Your task to perform on an android device: all mails in gmail Image 0: 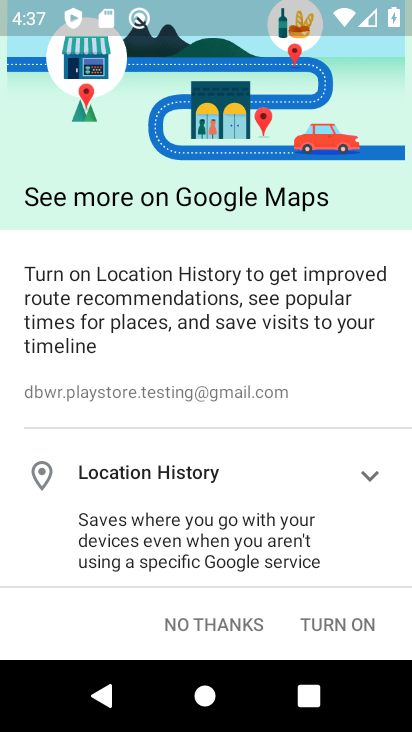
Step 0: press home button
Your task to perform on an android device: all mails in gmail Image 1: 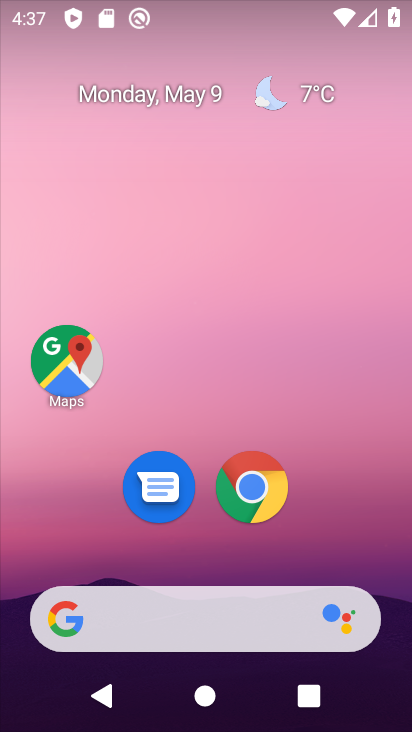
Step 1: drag from (216, 535) to (270, 136)
Your task to perform on an android device: all mails in gmail Image 2: 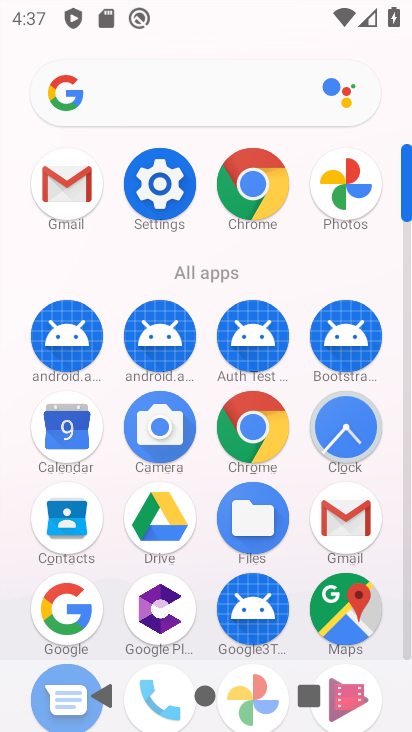
Step 2: click (63, 204)
Your task to perform on an android device: all mails in gmail Image 3: 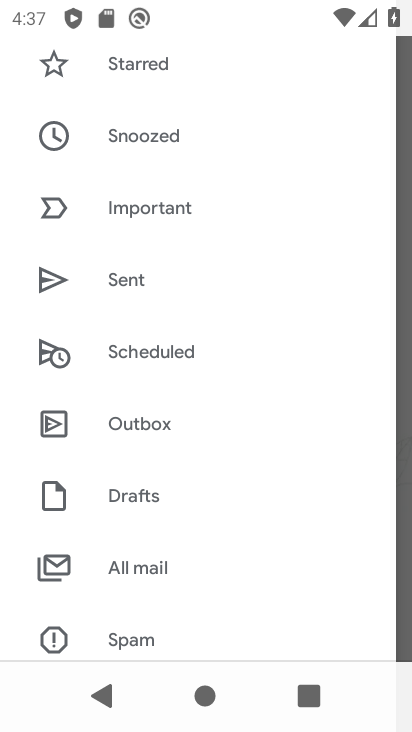
Step 3: task complete